Your task to perform on an android device: read, delete, or share a saved page in the chrome app Image 0: 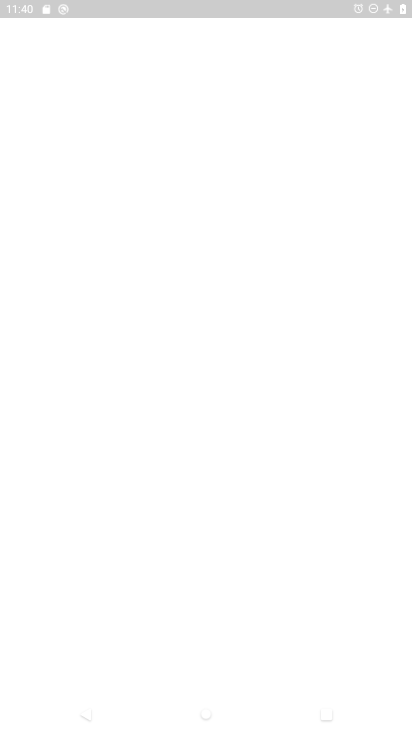
Step 0: press home button
Your task to perform on an android device: read, delete, or share a saved page in the chrome app Image 1: 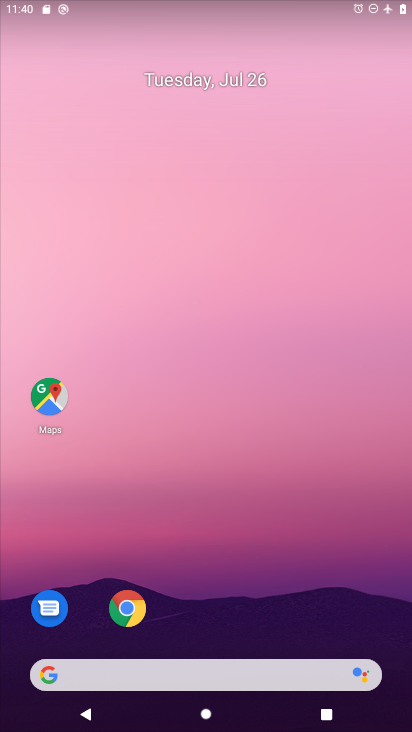
Step 1: drag from (265, 606) to (192, 59)
Your task to perform on an android device: read, delete, or share a saved page in the chrome app Image 2: 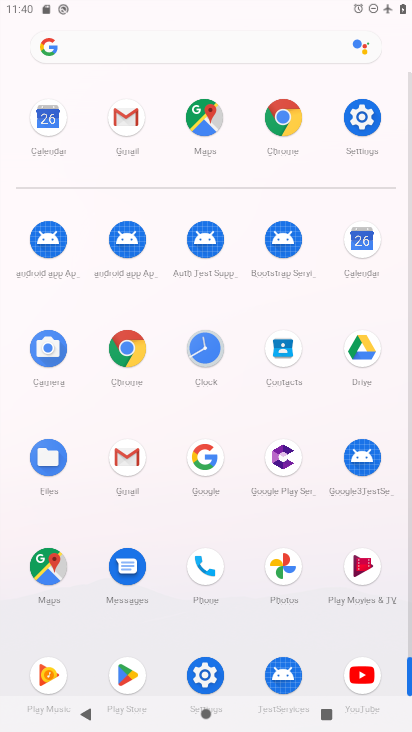
Step 2: click (287, 120)
Your task to perform on an android device: read, delete, or share a saved page in the chrome app Image 3: 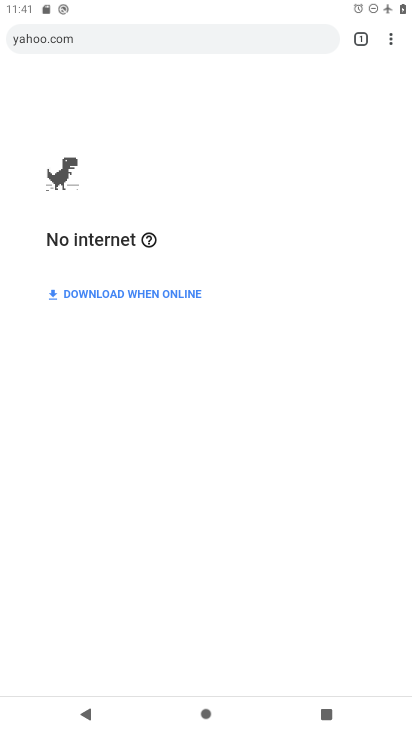
Step 3: task complete